Your task to perform on an android device: What is the news today? Image 0: 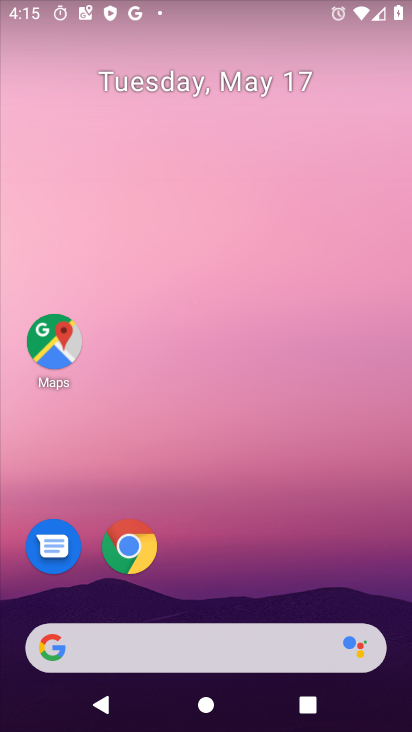
Step 0: click (376, 290)
Your task to perform on an android device: What is the news today? Image 1: 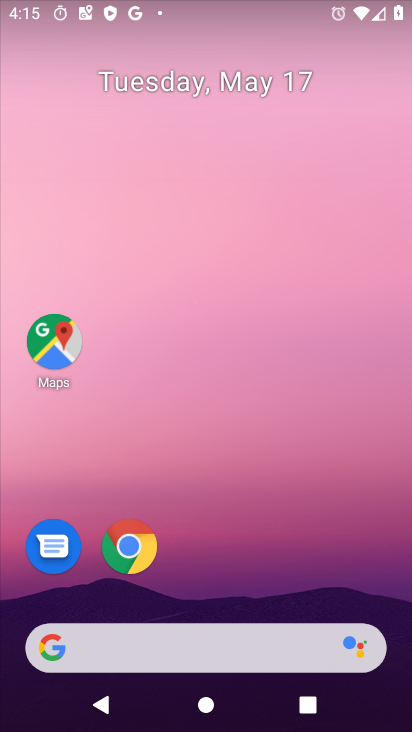
Step 1: drag from (394, 690) to (367, 330)
Your task to perform on an android device: What is the news today? Image 2: 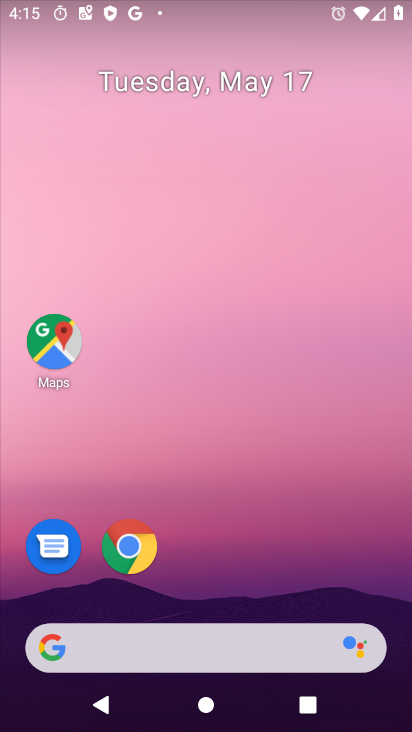
Step 2: click (347, 276)
Your task to perform on an android device: What is the news today? Image 3: 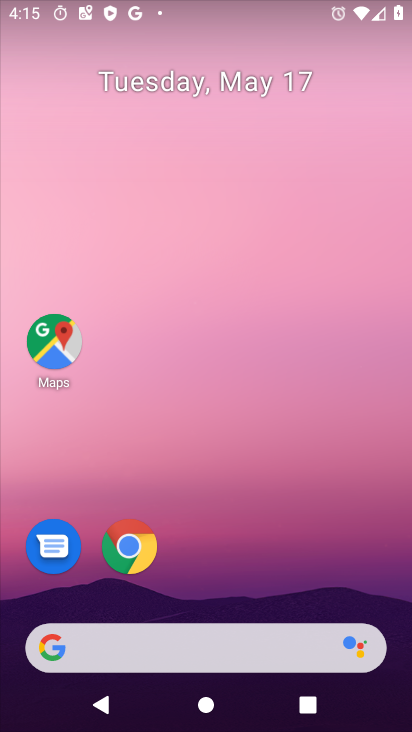
Step 3: press back button
Your task to perform on an android device: What is the news today? Image 4: 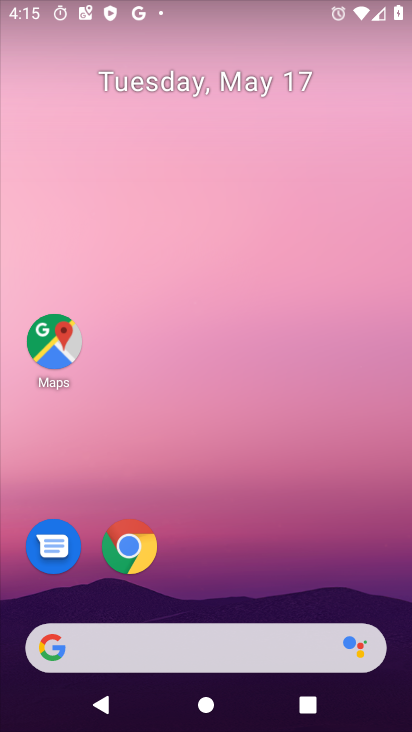
Step 4: click (361, 240)
Your task to perform on an android device: What is the news today? Image 5: 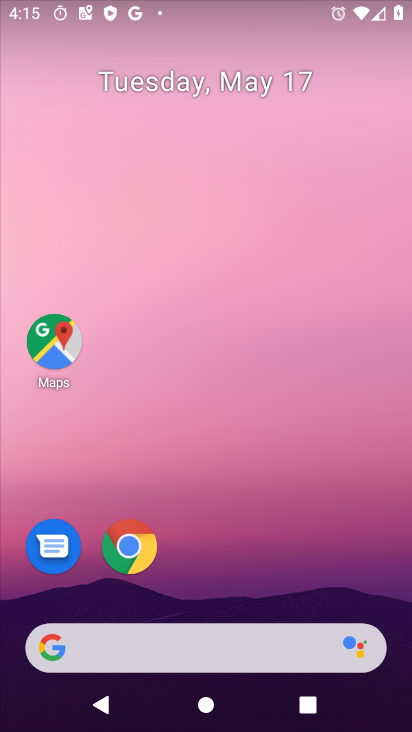
Step 5: click (122, 549)
Your task to perform on an android device: What is the news today? Image 6: 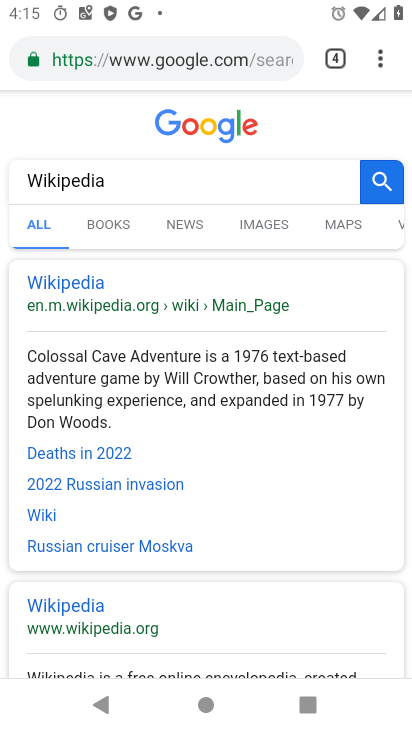
Step 6: press back button
Your task to perform on an android device: What is the news today? Image 7: 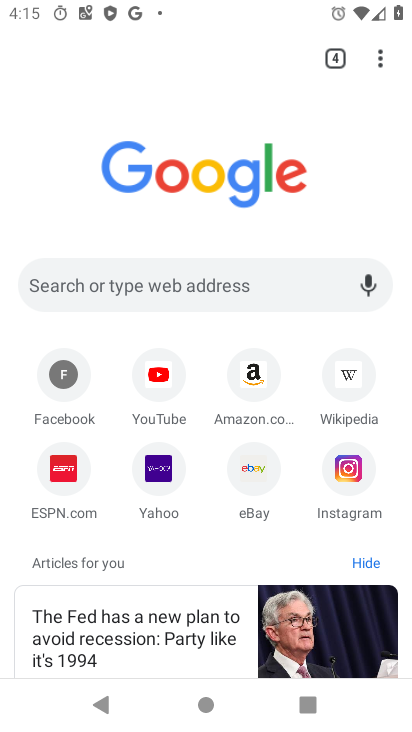
Step 7: click (381, 56)
Your task to perform on an android device: What is the news today? Image 8: 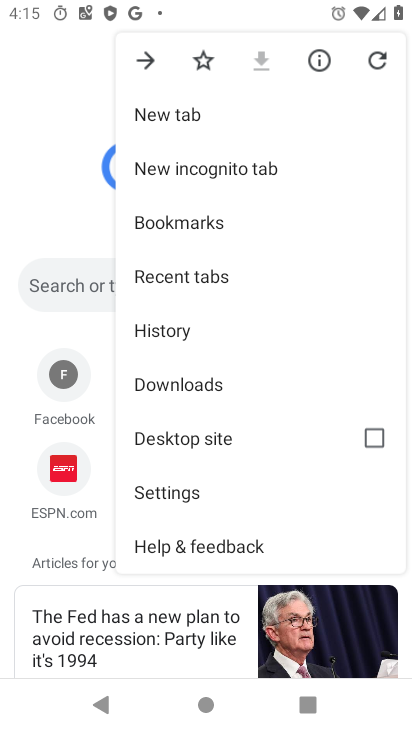
Step 8: press back button
Your task to perform on an android device: What is the news today? Image 9: 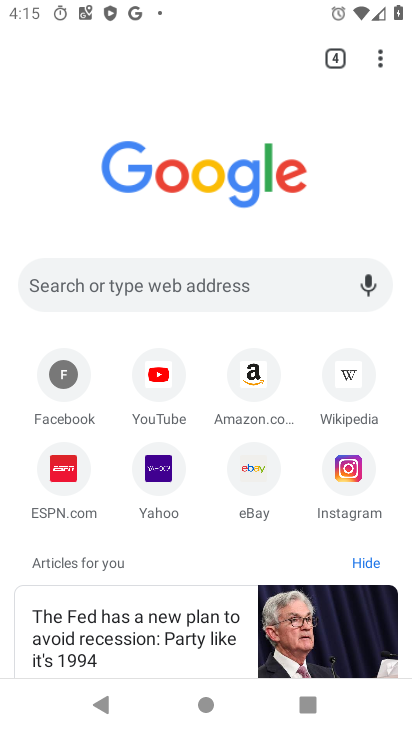
Step 9: drag from (302, 209) to (206, 197)
Your task to perform on an android device: What is the news today? Image 10: 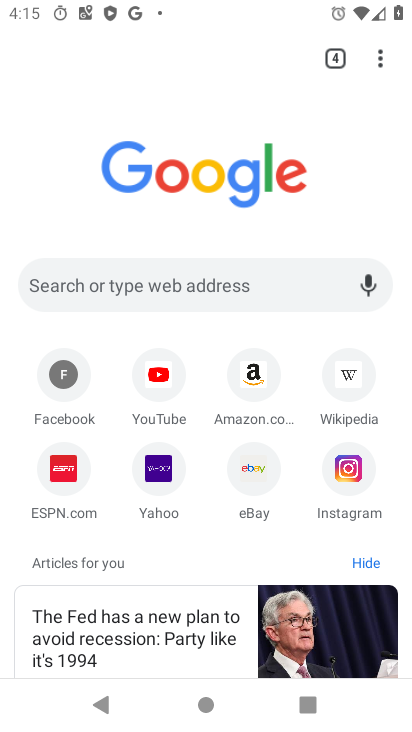
Step 10: press home button
Your task to perform on an android device: What is the news today? Image 11: 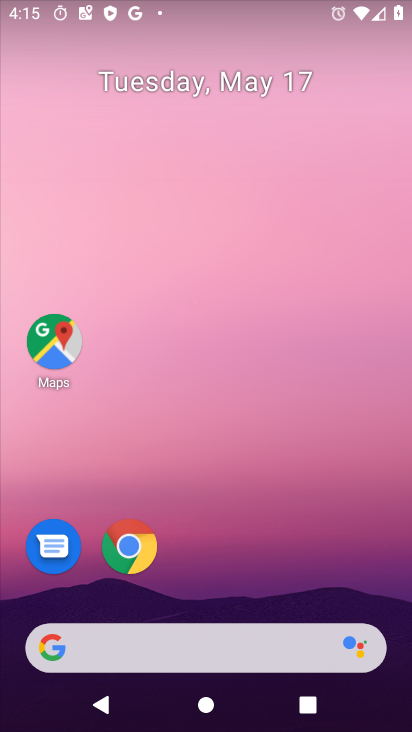
Step 11: drag from (394, 668) to (387, 240)
Your task to perform on an android device: What is the news today? Image 12: 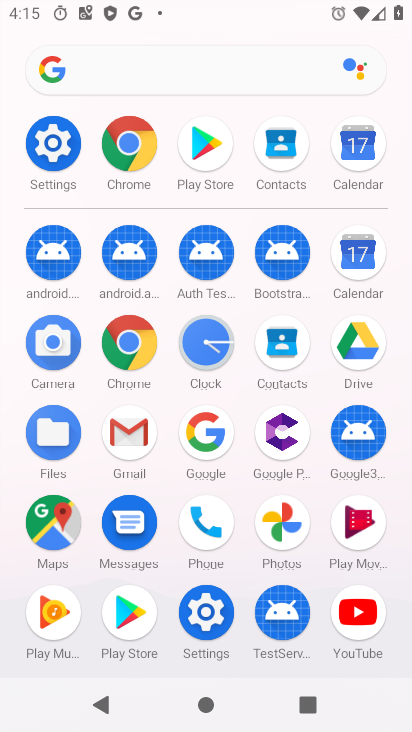
Step 12: click (194, 432)
Your task to perform on an android device: What is the news today? Image 13: 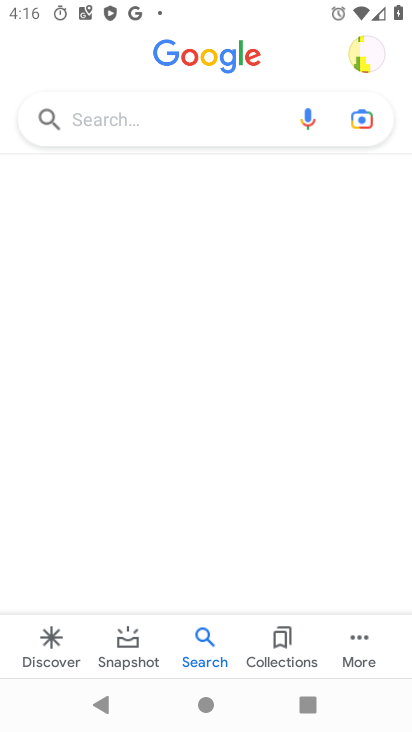
Step 13: task complete